Your task to perform on an android device: When is my next appointment? Image 0: 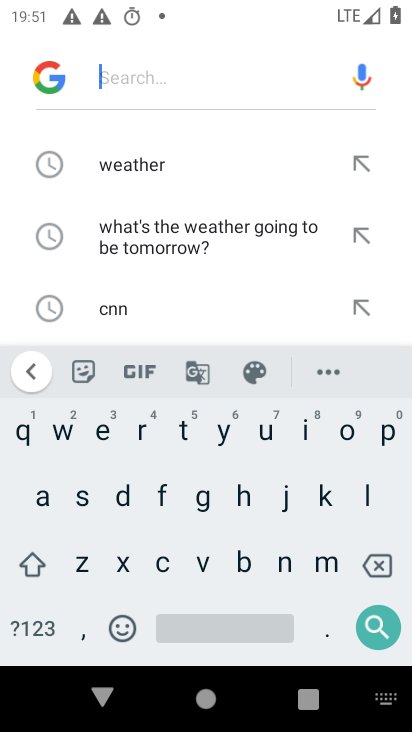
Step 0: press home button
Your task to perform on an android device: When is my next appointment? Image 1: 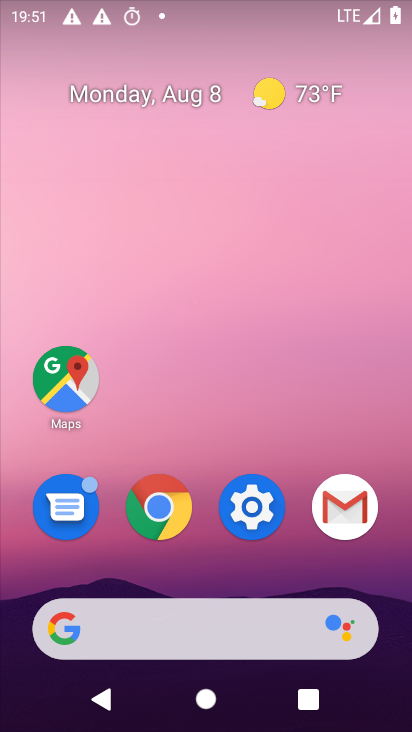
Step 1: drag from (250, 598) to (197, 190)
Your task to perform on an android device: When is my next appointment? Image 2: 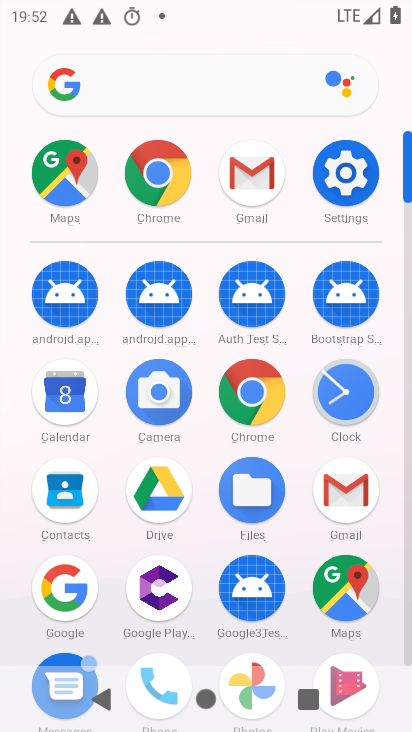
Step 2: click (64, 395)
Your task to perform on an android device: When is my next appointment? Image 3: 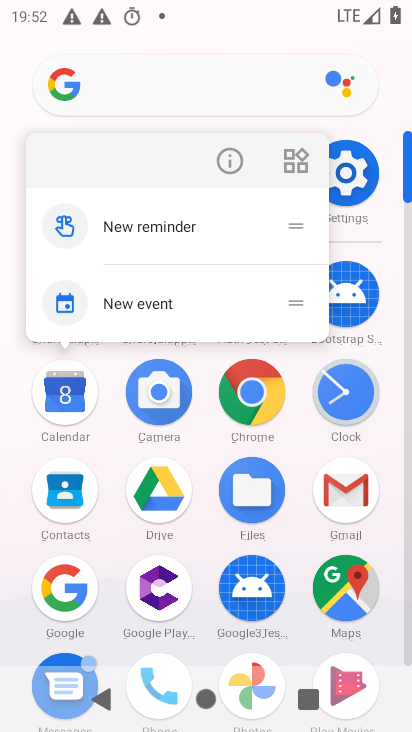
Step 3: click (75, 406)
Your task to perform on an android device: When is my next appointment? Image 4: 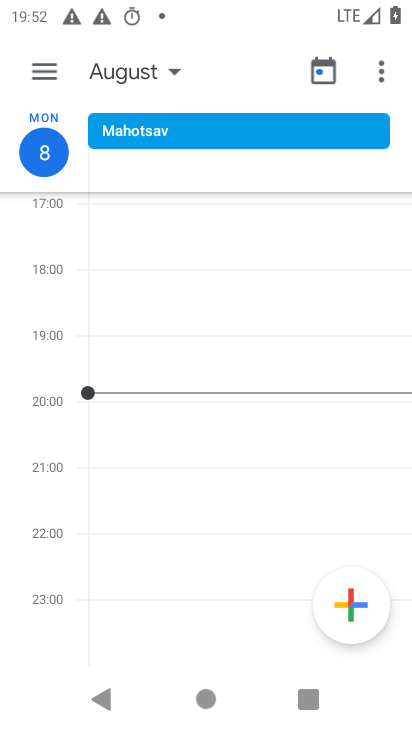
Step 4: click (52, 75)
Your task to perform on an android device: When is my next appointment? Image 5: 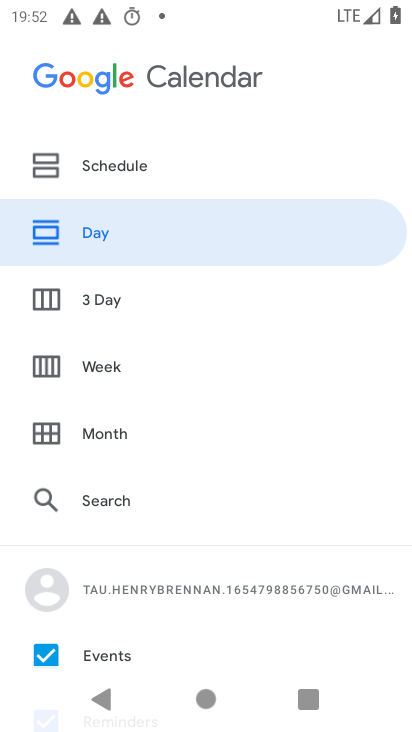
Step 5: click (90, 434)
Your task to perform on an android device: When is my next appointment? Image 6: 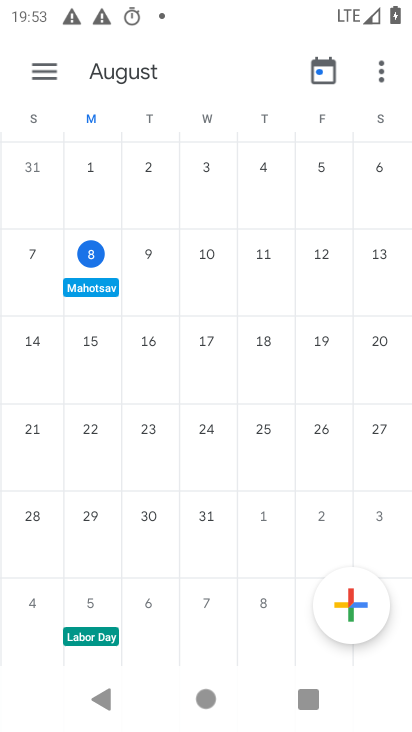
Step 6: click (87, 256)
Your task to perform on an android device: When is my next appointment? Image 7: 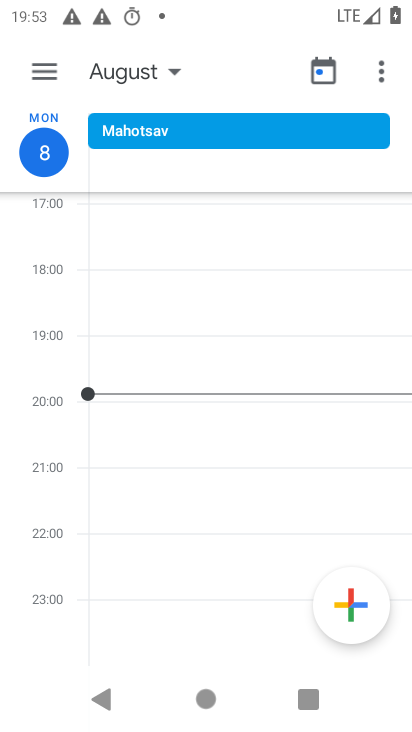
Step 7: click (53, 152)
Your task to perform on an android device: When is my next appointment? Image 8: 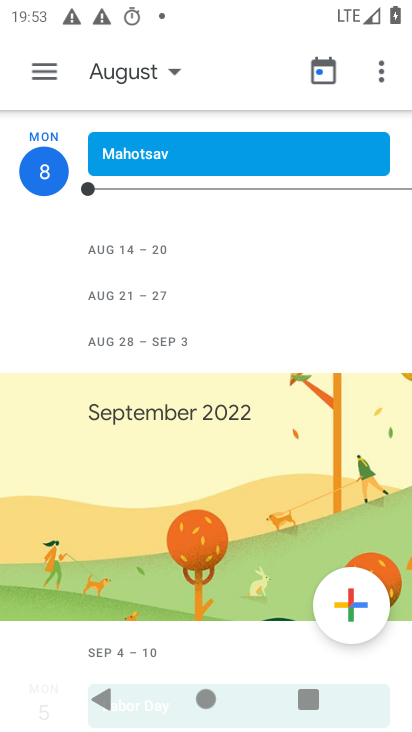
Step 8: task complete